Your task to perform on an android device: snooze an email in the gmail app Image 0: 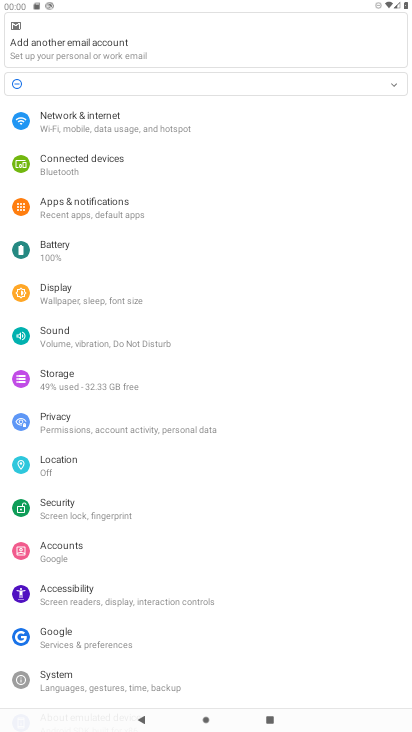
Step 0: press home button
Your task to perform on an android device: snooze an email in the gmail app Image 1: 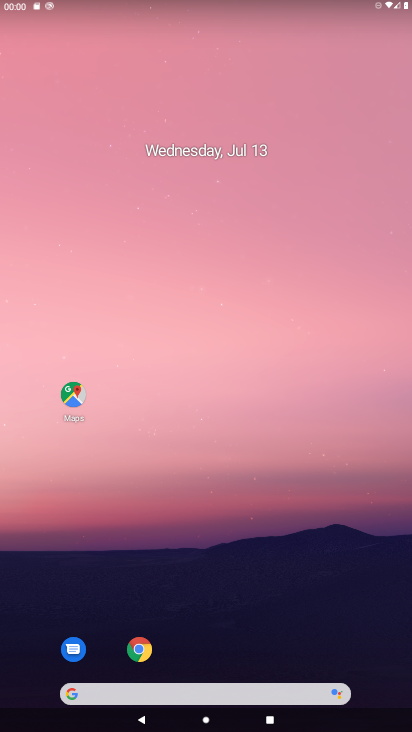
Step 1: drag from (383, 675) to (318, 120)
Your task to perform on an android device: snooze an email in the gmail app Image 2: 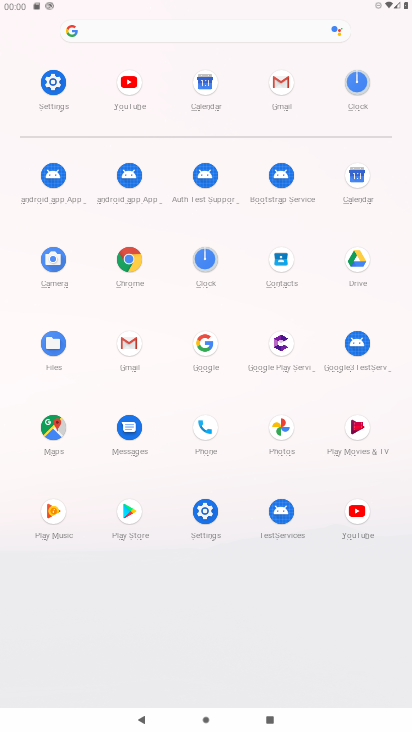
Step 2: click (128, 343)
Your task to perform on an android device: snooze an email in the gmail app Image 3: 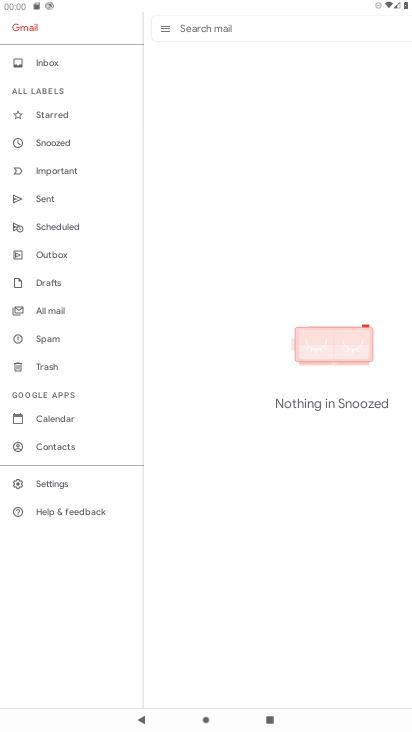
Step 3: click (43, 310)
Your task to perform on an android device: snooze an email in the gmail app Image 4: 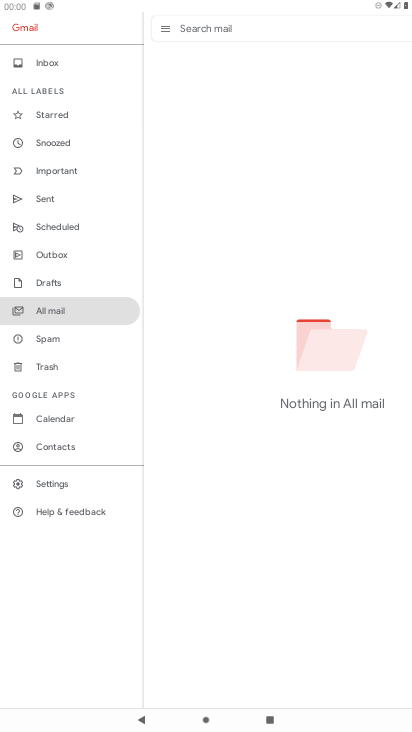
Step 4: task complete